Your task to perform on an android device: Open eBay Image 0: 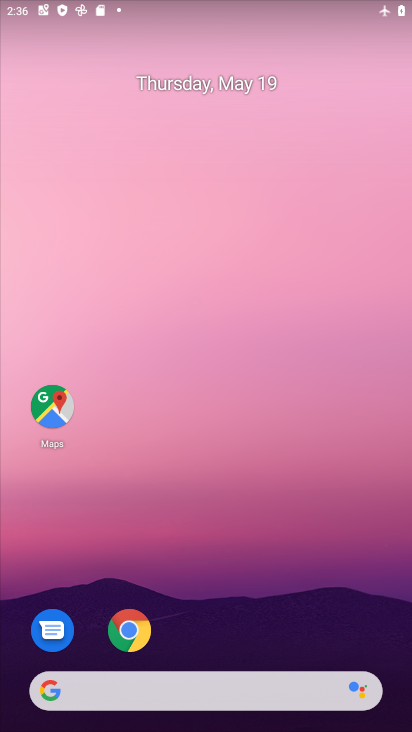
Step 0: click (130, 632)
Your task to perform on an android device: Open eBay Image 1: 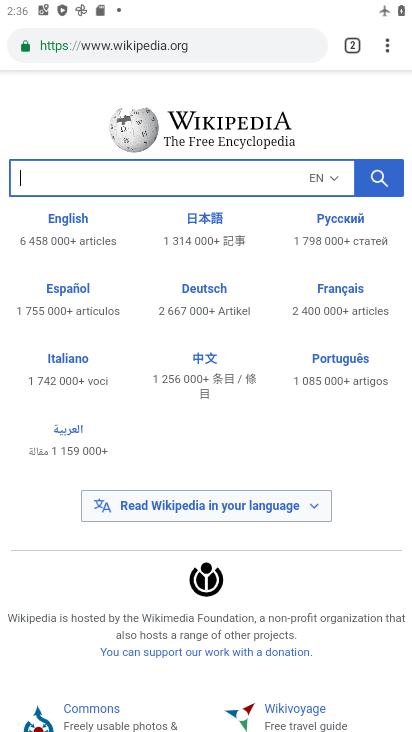
Step 1: click (117, 45)
Your task to perform on an android device: Open eBay Image 2: 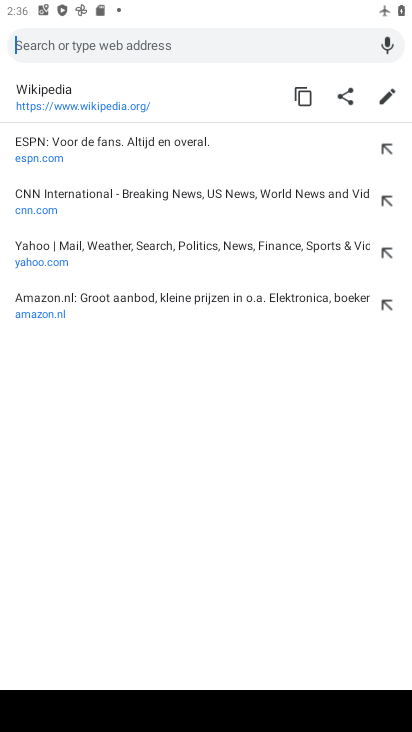
Step 2: type "ebay"
Your task to perform on an android device: Open eBay Image 3: 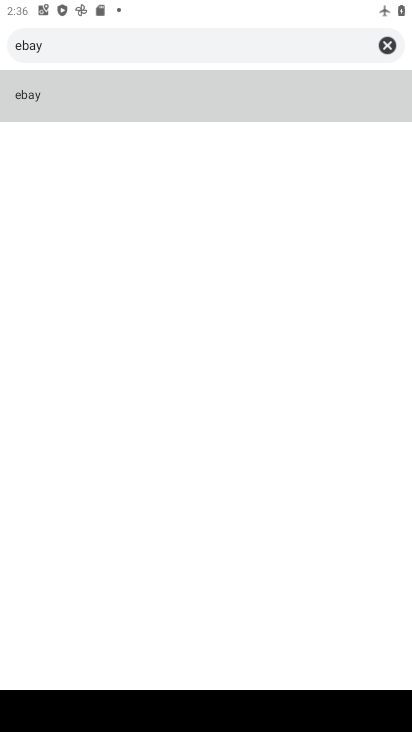
Step 3: click (42, 86)
Your task to perform on an android device: Open eBay Image 4: 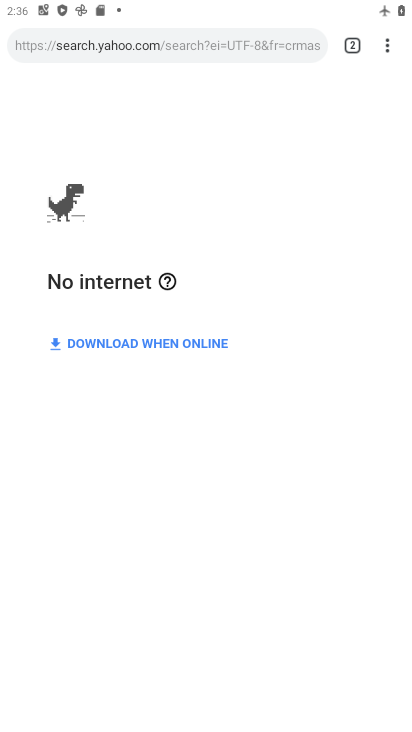
Step 4: task complete